Your task to perform on an android device: Play the last video I watched on Youtube Image 0: 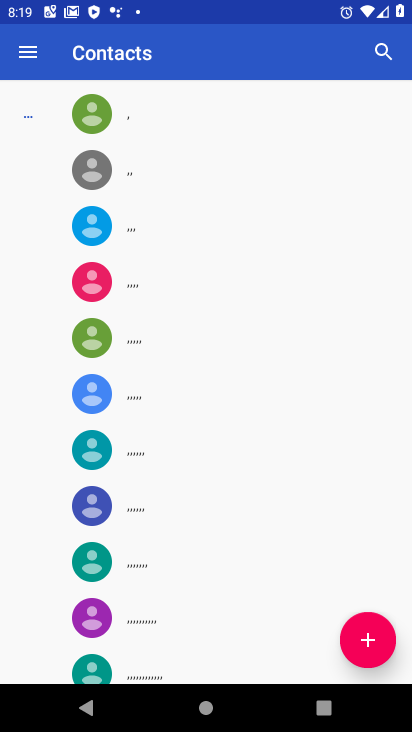
Step 0: press back button
Your task to perform on an android device: Play the last video I watched on Youtube Image 1: 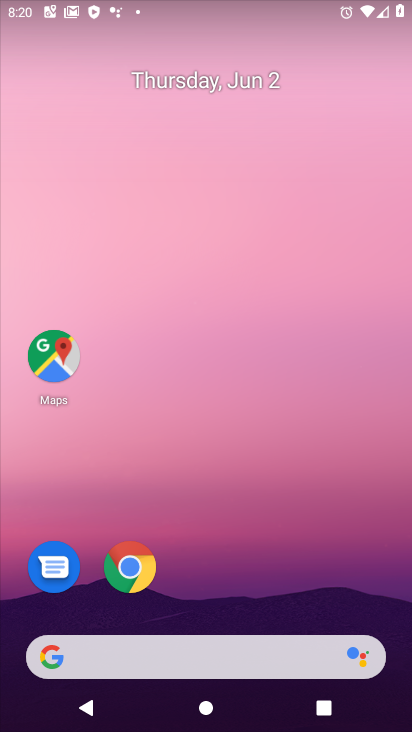
Step 1: drag from (230, 547) to (291, 19)
Your task to perform on an android device: Play the last video I watched on Youtube Image 2: 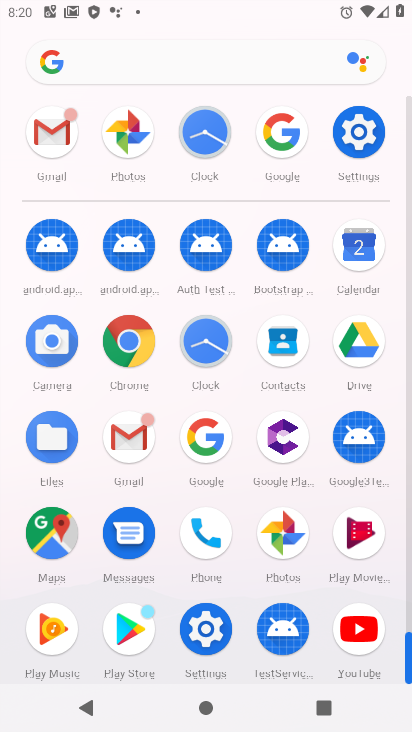
Step 2: drag from (242, 397) to (260, 211)
Your task to perform on an android device: Play the last video I watched on Youtube Image 3: 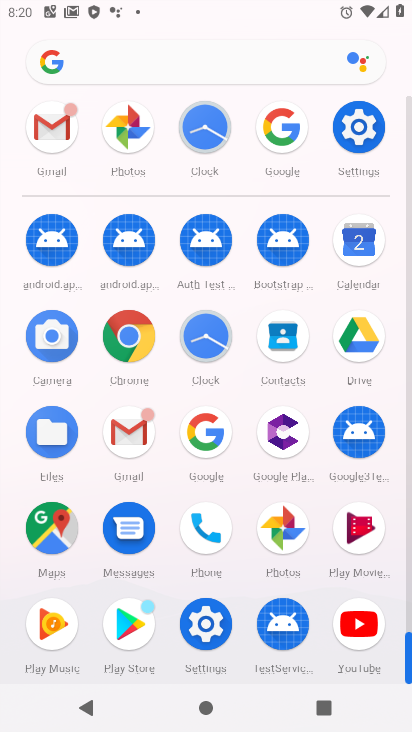
Step 3: click (358, 623)
Your task to perform on an android device: Play the last video I watched on Youtube Image 4: 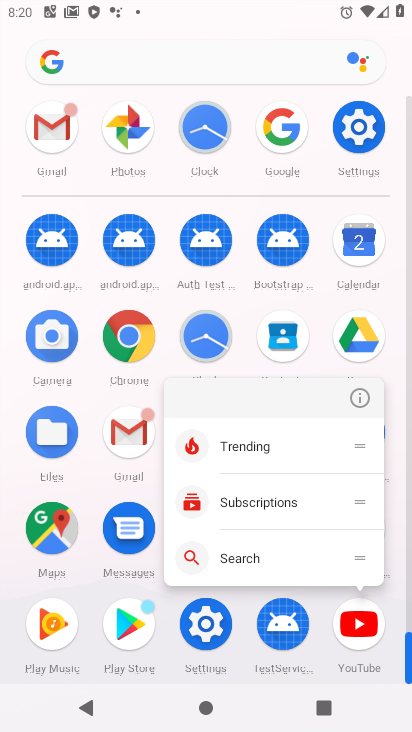
Step 4: click (358, 623)
Your task to perform on an android device: Play the last video I watched on Youtube Image 5: 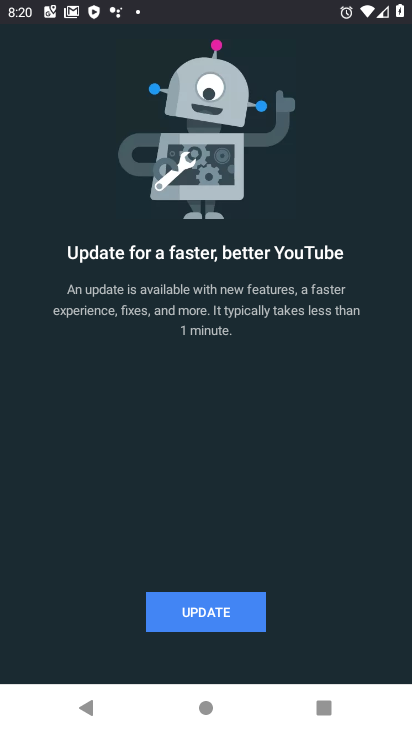
Step 5: click (203, 614)
Your task to perform on an android device: Play the last video I watched on Youtube Image 6: 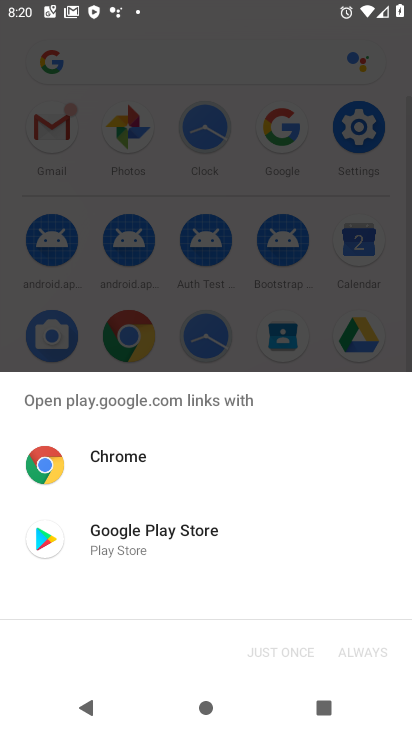
Step 6: click (137, 528)
Your task to perform on an android device: Play the last video I watched on Youtube Image 7: 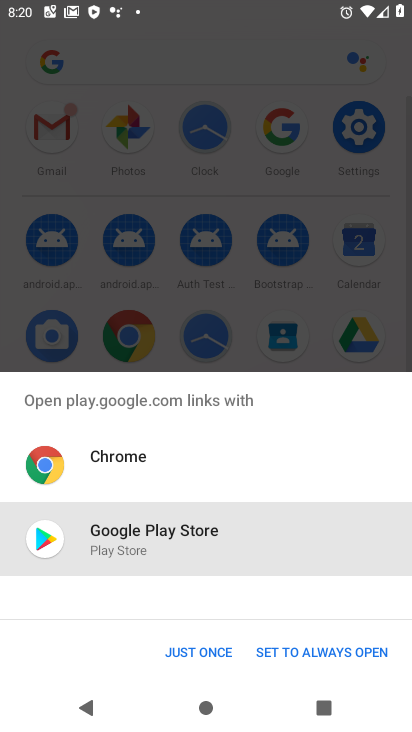
Step 7: click (207, 652)
Your task to perform on an android device: Play the last video I watched on Youtube Image 8: 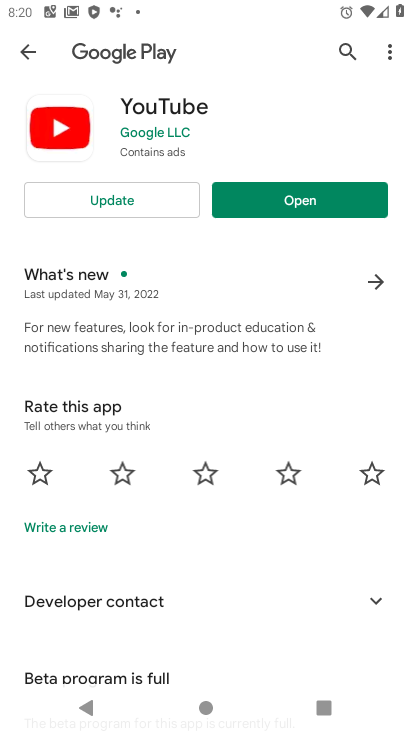
Step 8: click (114, 206)
Your task to perform on an android device: Play the last video I watched on Youtube Image 9: 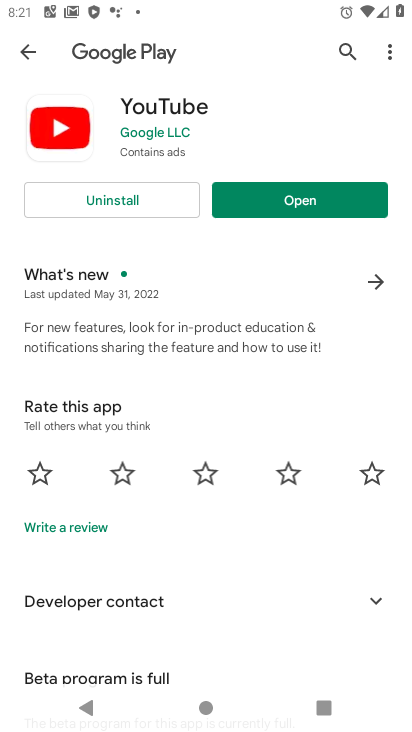
Step 9: click (285, 203)
Your task to perform on an android device: Play the last video I watched on Youtube Image 10: 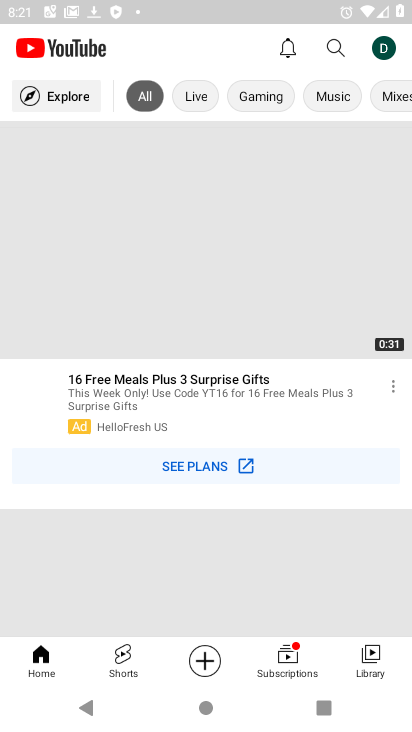
Step 10: click (373, 656)
Your task to perform on an android device: Play the last video I watched on Youtube Image 11: 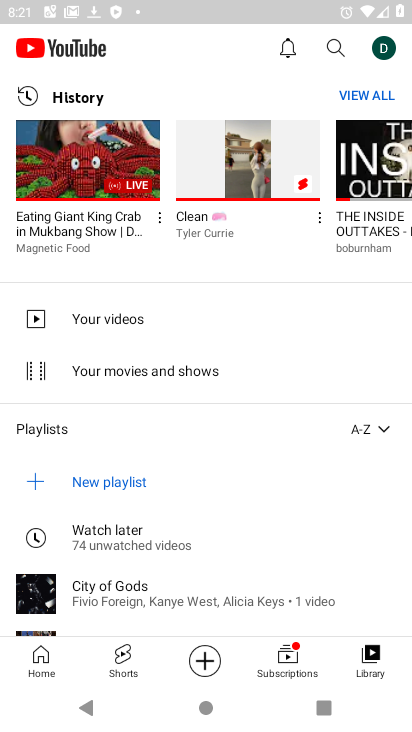
Step 11: click (75, 163)
Your task to perform on an android device: Play the last video I watched on Youtube Image 12: 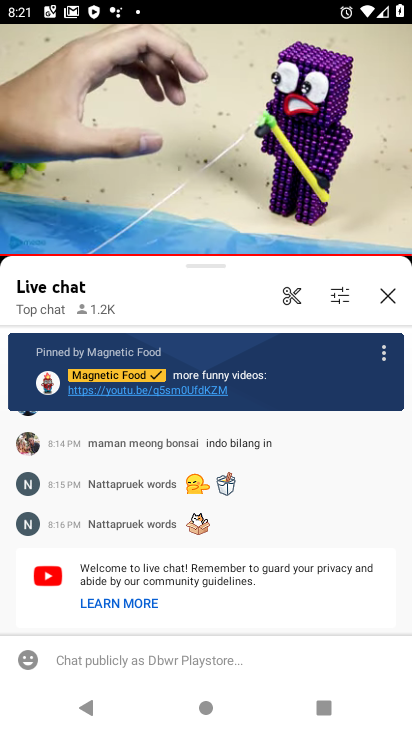
Step 12: click (214, 151)
Your task to perform on an android device: Play the last video I watched on Youtube Image 13: 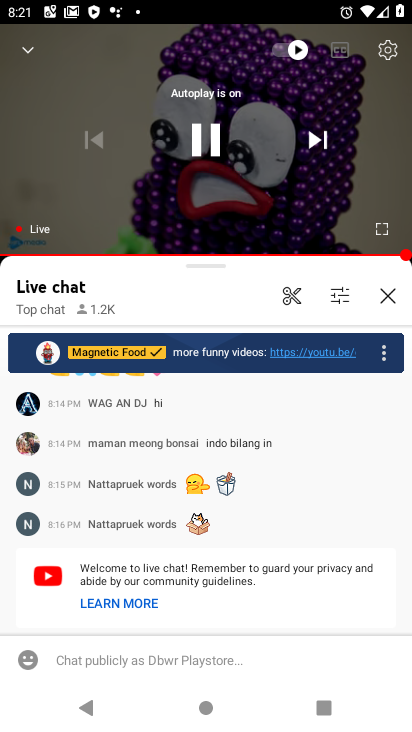
Step 13: click (214, 151)
Your task to perform on an android device: Play the last video I watched on Youtube Image 14: 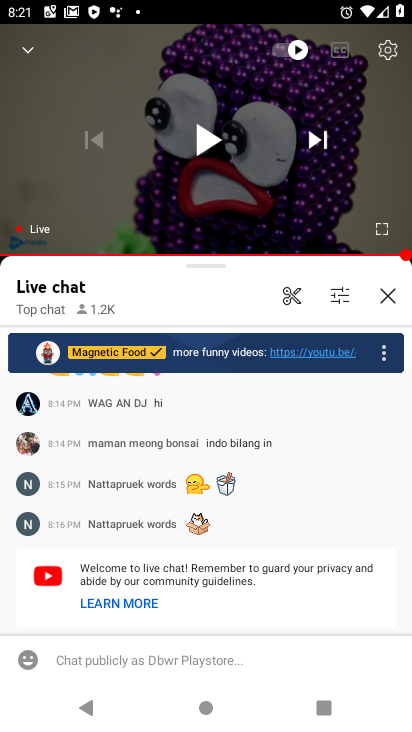
Step 14: task complete